Your task to perform on an android device: Open maps Image 0: 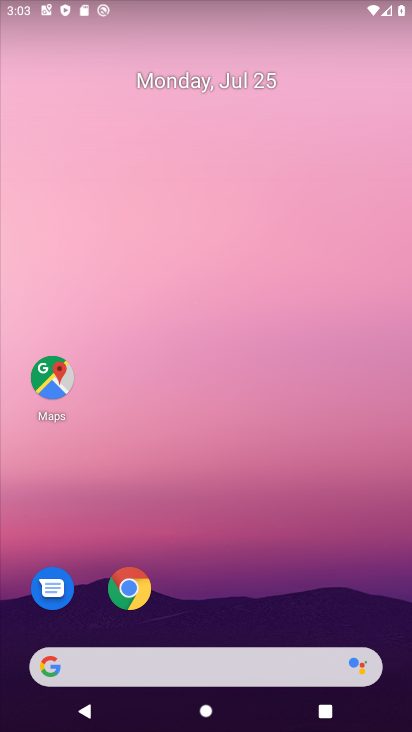
Step 0: drag from (329, 416) to (313, 50)
Your task to perform on an android device: Open maps Image 1: 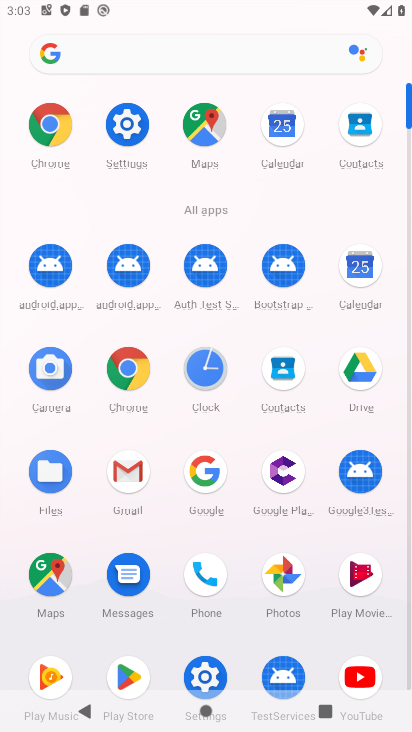
Step 1: click (212, 137)
Your task to perform on an android device: Open maps Image 2: 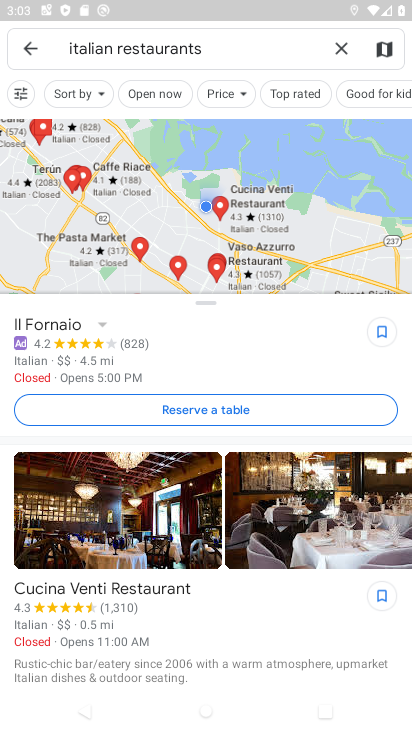
Step 2: task complete